Your task to perform on an android device: toggle pop-ups in chrome Image 0: 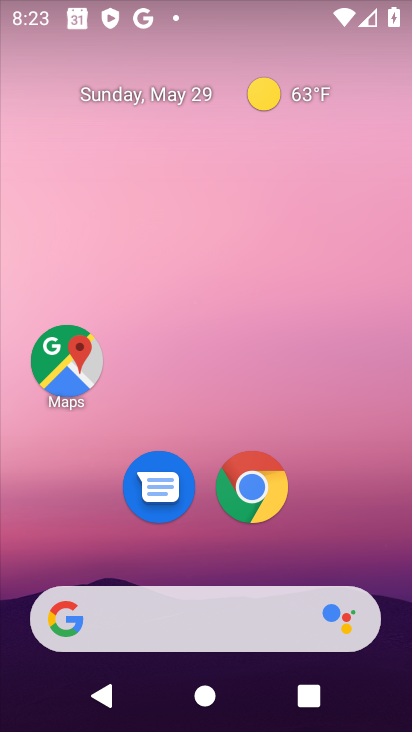
Step 0: click (250, 487)
Your task to perform on an android device: toggle pop-ups in chrome Image 1: 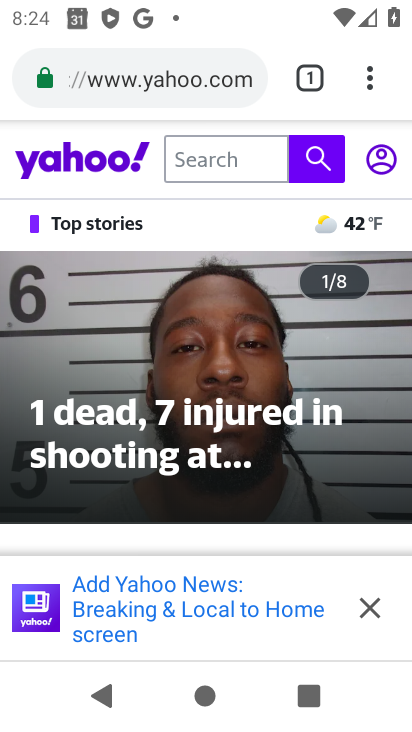
Step 1: click (371, 78)
Your task to perform on an android device: toggle pop-ups in chrome Image 2: 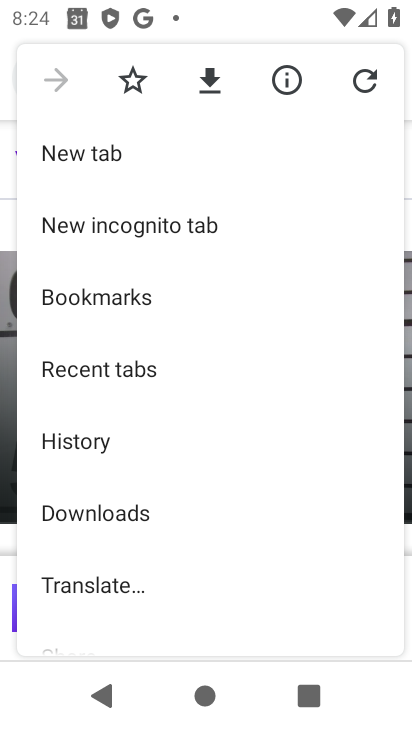
Step 2: drag from (154, 460) to (181, 372)
Your task to perform on an android device: toggle pop-ups in chrome Image 3: 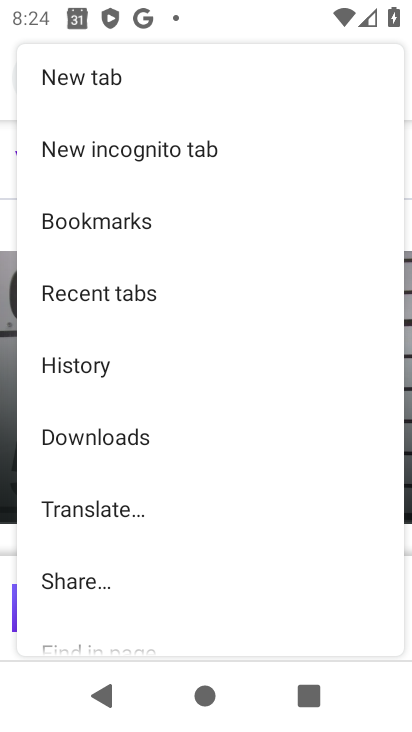
Step 3: drag from (141, 550) to (176, 467)
Your task to perform on an android device: toggle pop-ups in chrome Image 4: 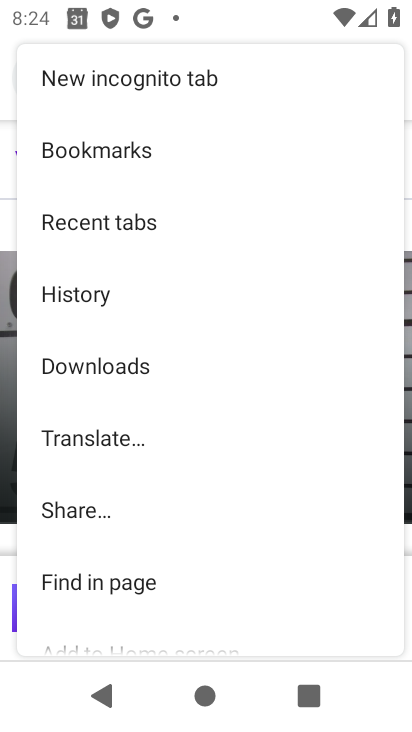
Step 4: drag from (99, 541) to (162, 468)
Your task to perform on an android device: toggle pop-ups in chrome Image 5: 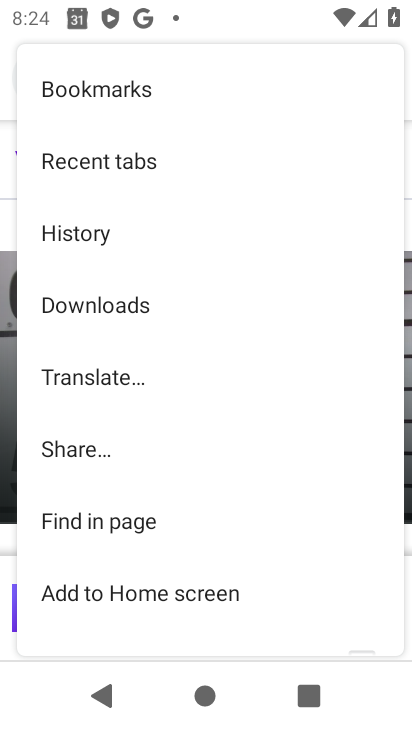
Step 5: drag from (117, 542) to (171, 465)
Your task to perform on an android device: toggle pop-ups in chrome Image 6: 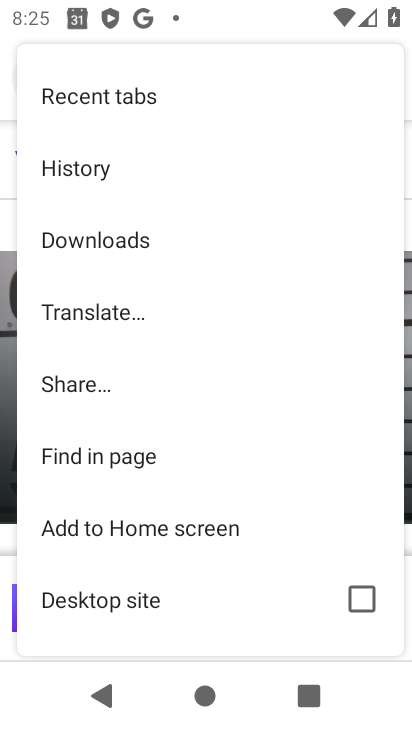
Step 6: drag from (121, 549) to (205, 441)
Your task to perform on an android device: toggle pop-ups in chrome Image 7: 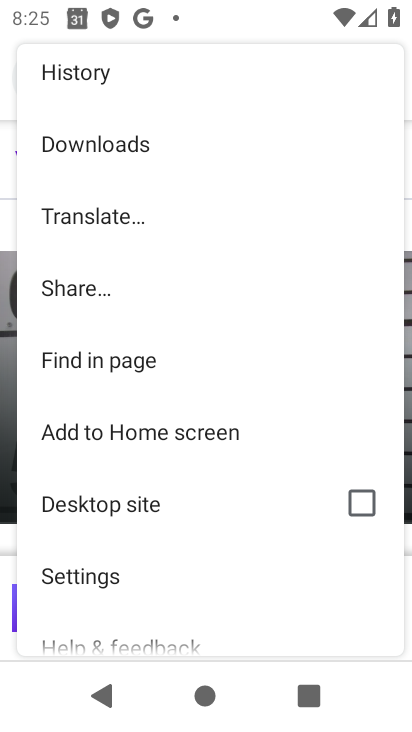
Step 7: drag from (137, 538) to (190, 466)
Your task to perform on an android device: toggle pop-ups in chrome Image 8: 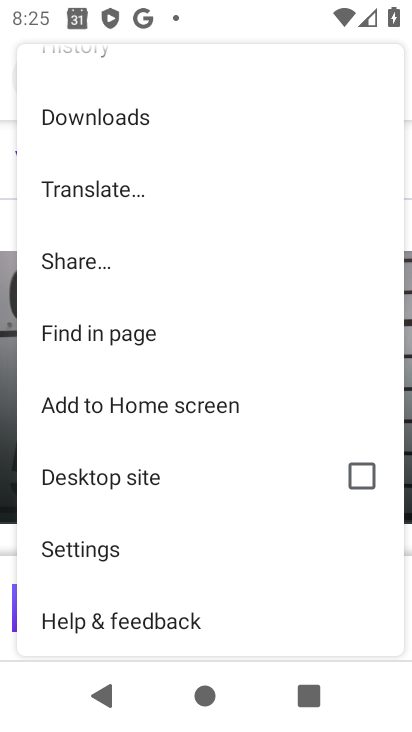
Step 8: click (112, 544)
Your task to perform on an android device: toggle pop-ups in chrome Image 9: 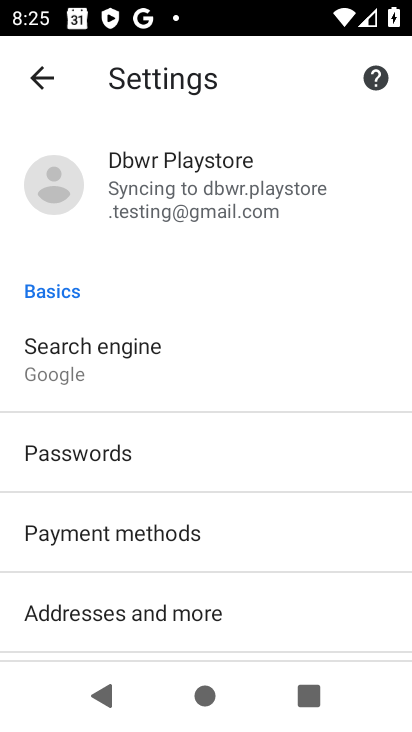
Step 9: drag from (128, 582) to (158, 486)
Your task to perform on an android device: toggle pop-ups in chrome Image 10: 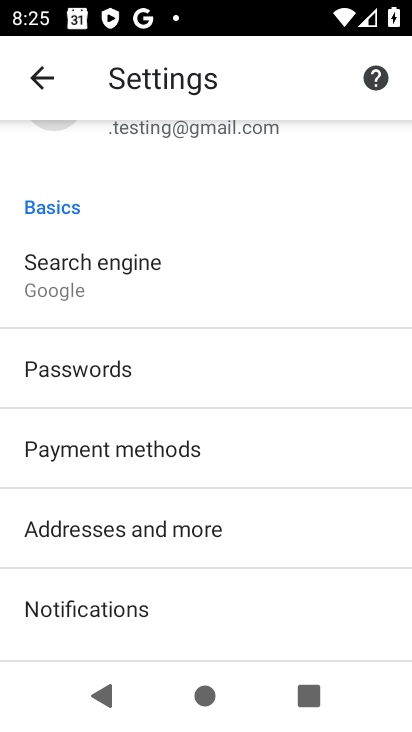
Step 10: drag from (178, 600) to (225, 507)
Your task to perform on an android device: toggle pop-ups in chrome Image 11: 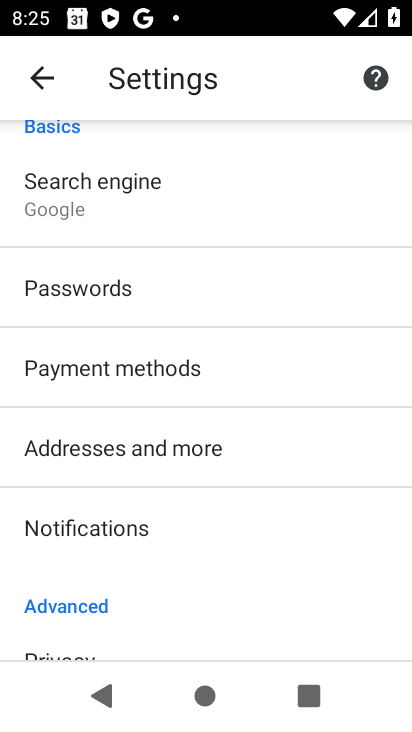
Step 11: drag from (136, 575) to (193, 458)
Your task to perform on an android device: toggle pop-ups in chrome Image 12: 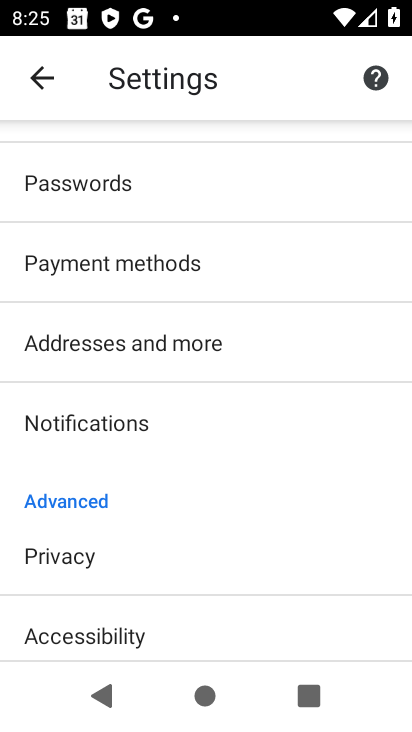
Step 12: drag from (112, 565) to (163, 490)
Your task to perform on an android device: toggle pop-ups in chrome Image 13: 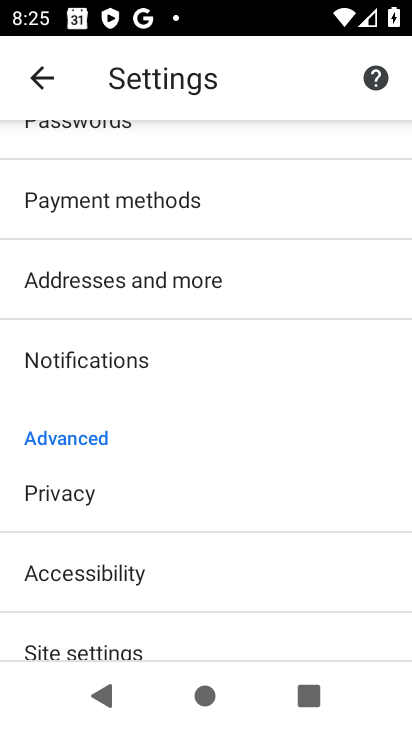
Step 13: drag from (173, 587) to (239, 494)
Your task to perform on an android device: toggle pop-ups in chrome Image 14: 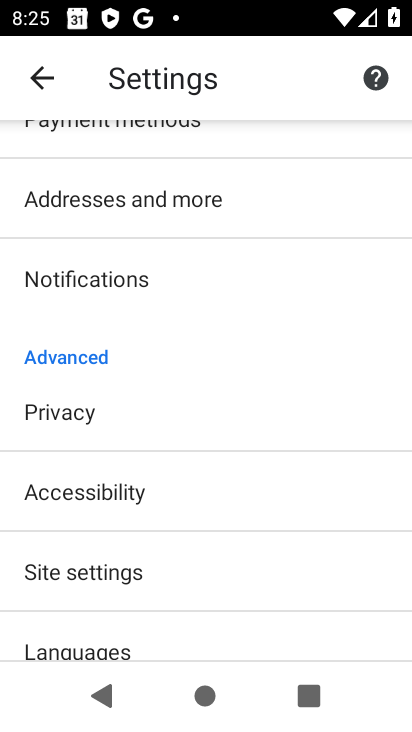
Step 14: drag from (165, 578) to (192, 499)
Your task to perform on an android device: toggle pop-ups in chrome Image 15: 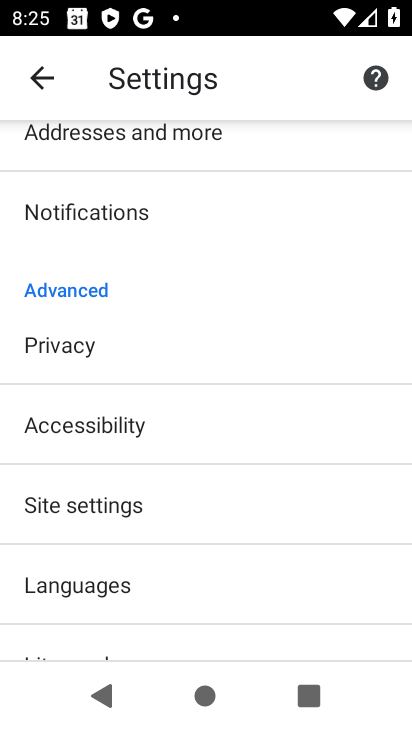
Step 15: click (132, 510)
Your task to perform on an android device: toggle pop-ups in chrome Image 16: 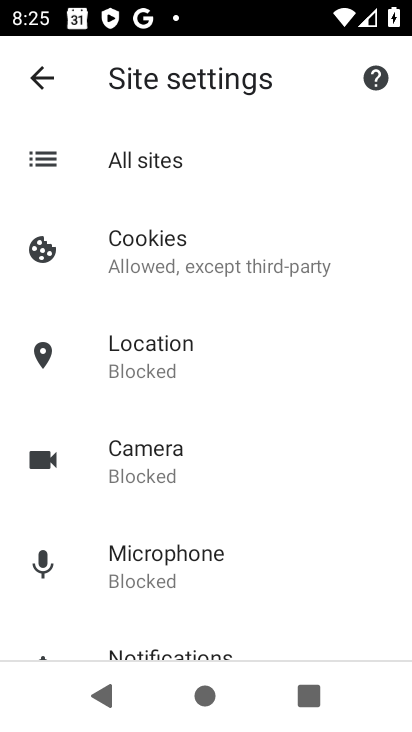
Step 16: drag from (185, 608) to (256, 508)
Your task to perform on an android device: toggle pop-ups in chrome Image 17: 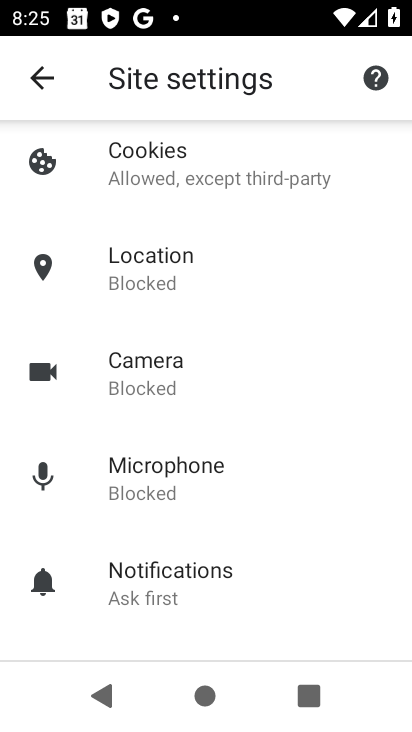
Step 17: drag from (212, 617) to (233, 523)
Your task to perform on an android device: toggle pop-ups in chrome Image 18: 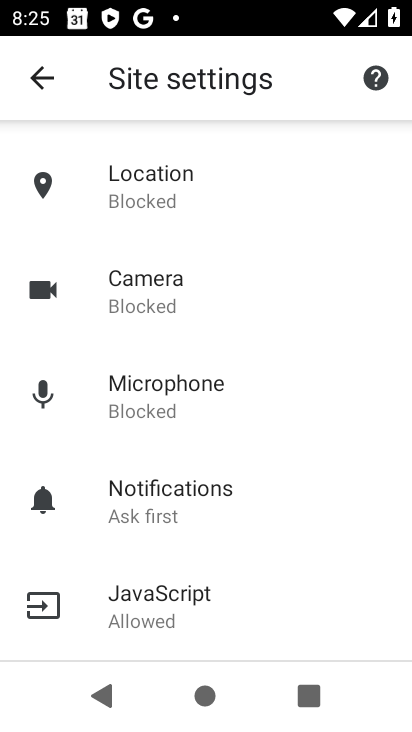
Step 18: drag from (215, 631) to (264, 523)
Your task to perform on an android device: toggle pop-ups in chrome Image 19: 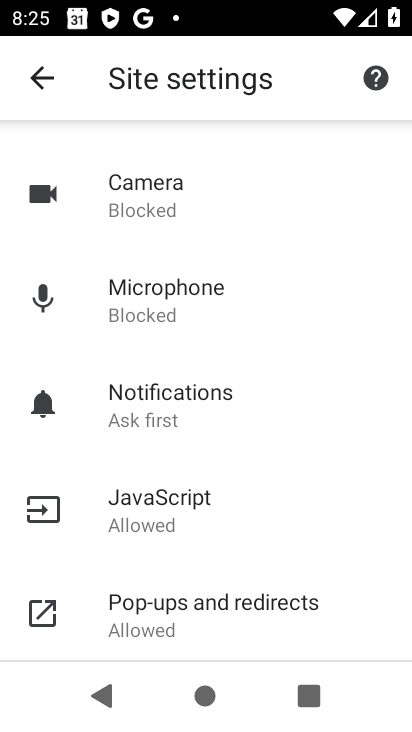
Step 19: drag from (209, 581) to (275, 486)
Your task to perform on an android device: toggle pop-ups in chrome Image 20: 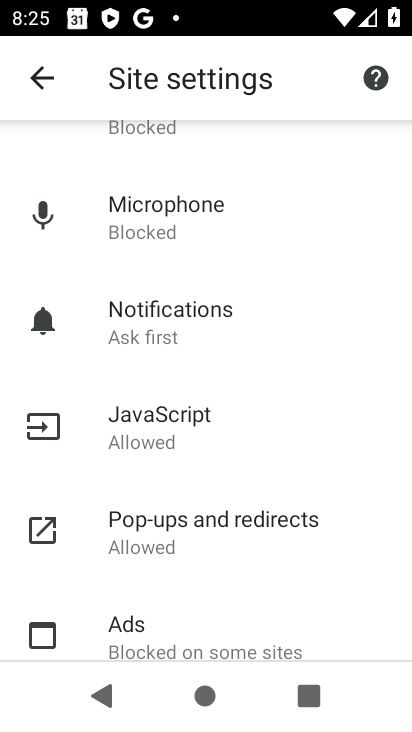
Step 20: click (254, 518)
Your task to perform on an android device: toggle pop-ups in chrome Image 21: 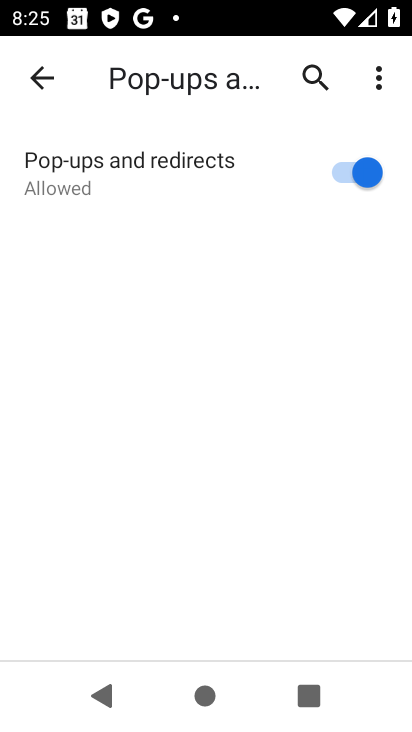
Step 21: click (346, 166)
Your task to perform on an android device: toggle pop-ups in chrome Image 22: 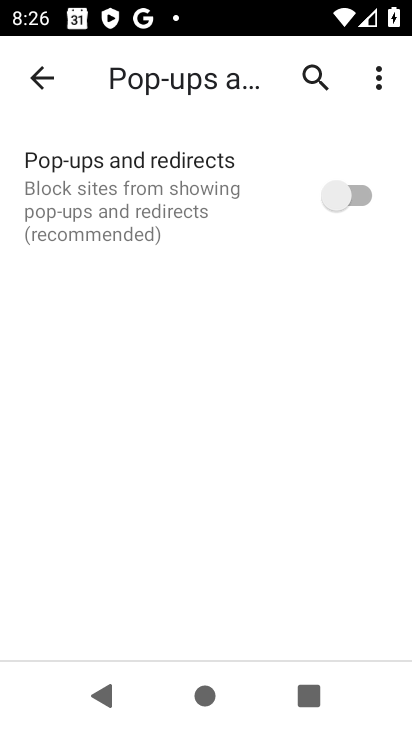
Step 22: task complete